Your task to perform on an android device: turn on showing notifications on the lock screen Image 0: 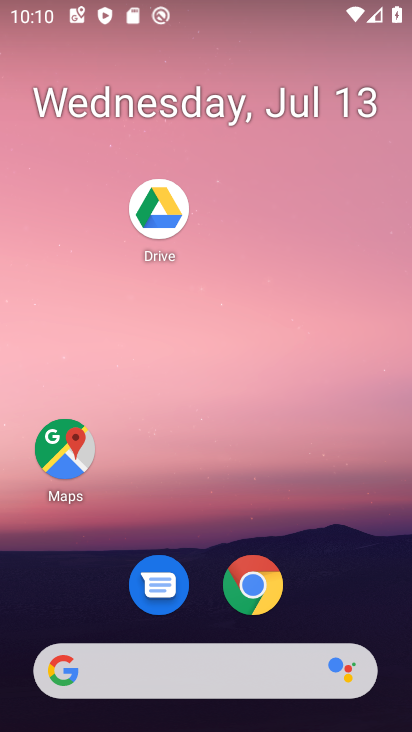
Step 0: drag from (302, 312) to (335, 179)
Your task to perform on an android device: turn on showing notifications on the lock screen Image 1: 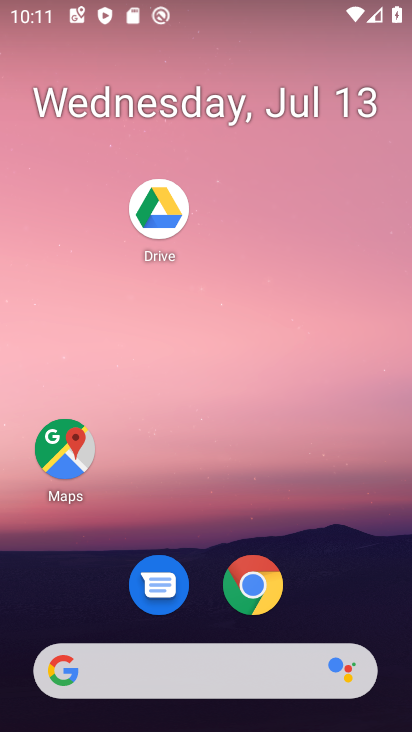
Step 1: drag from (209, 601) to (338, 213)
Your task to perform on an android device: turn on showing notifications on the lock screen Image 2: 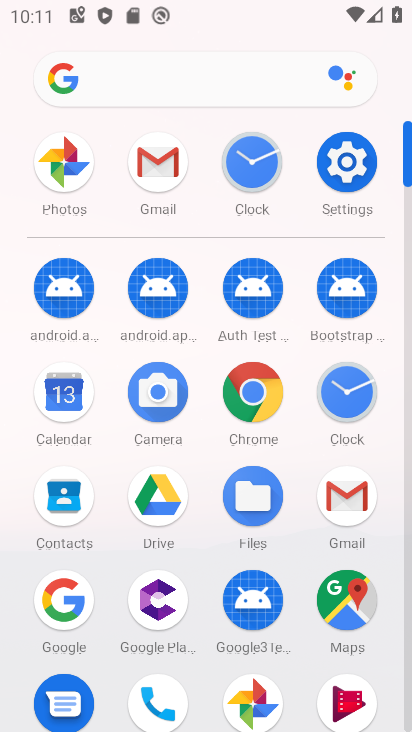
Step 2: click (360, 164)
Your task to perform on an android device: turn on showing notifications on the lock screen Image 3: 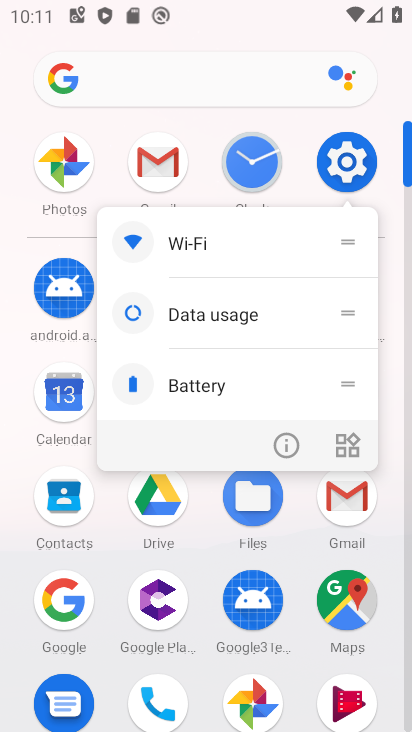
Step 3: click (348, 154)
Your task to perform on an android device: turn on showing notifications on the lock screen Image 4: 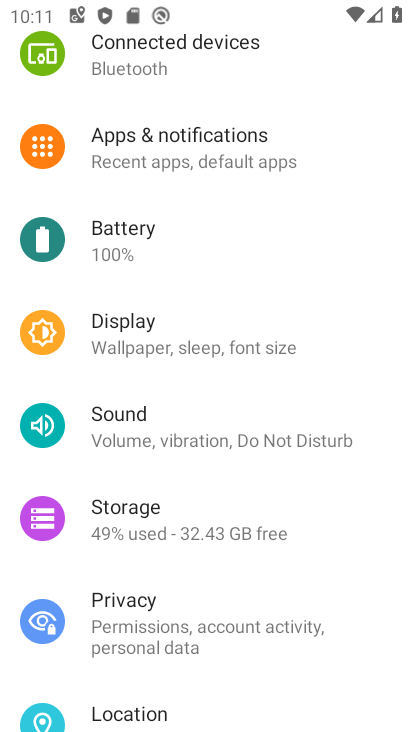
Step 4: click (220, 151)
Your task to perform on an android device: turn on showing notifications on the lock screen Image 5: 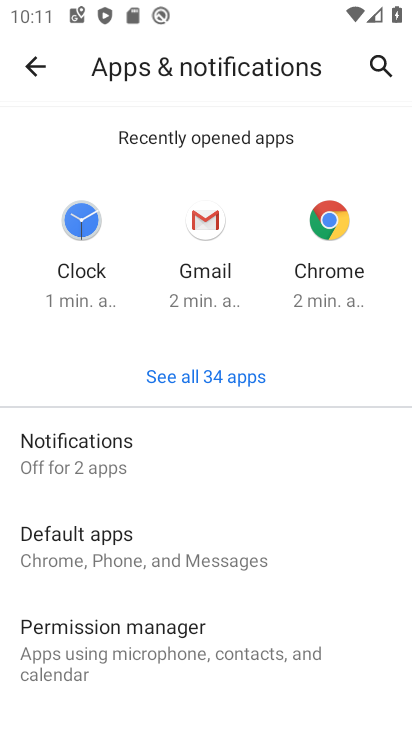
Step 5: click (106, 465)
Your task to perform on an android device: turn on showing notifications on the lock screen Image 6: 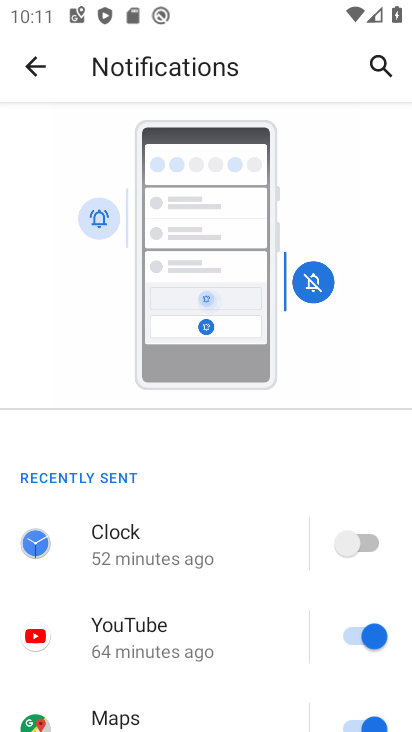
Step 6: drag from (212, 682) to (363, 160)
Your task to perform on an android device: turn on showing notifications on the lock screen Image 7: 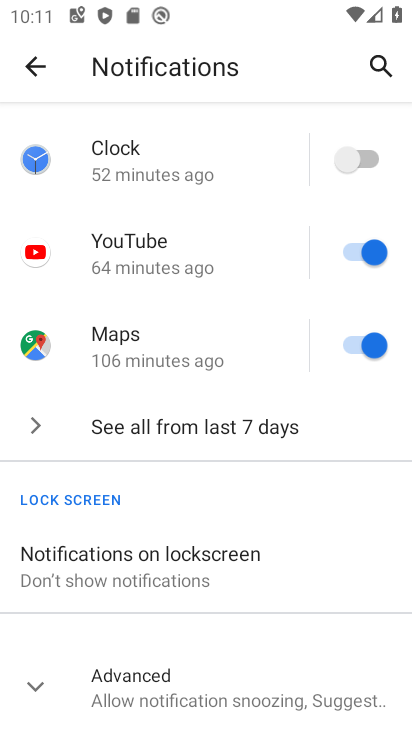
Step 7: click (139, 578)
Your task to perform on an android device: turn on showing notifications on the lock screen Image 8: 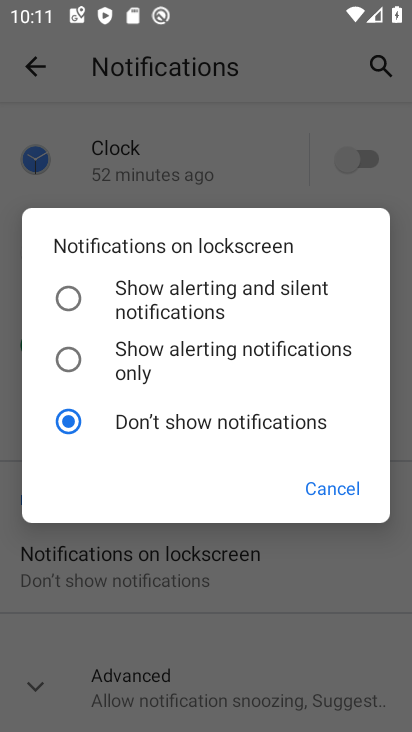
Step 8: click (68, 297)
Your task to perform on an android device: turn on showing notifications on the lock screen Image 9: 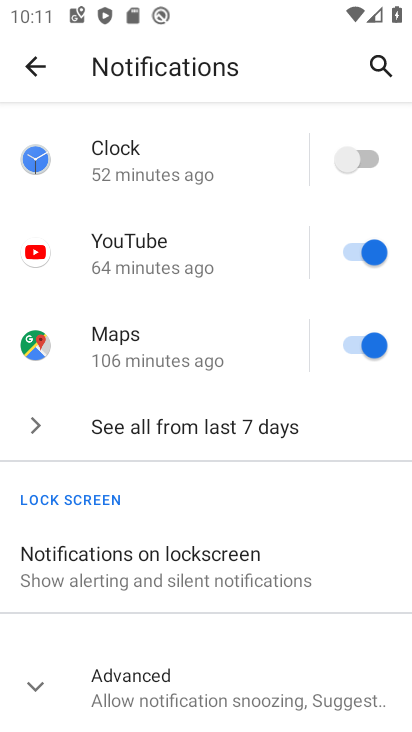
Step 9: task complete